Your task to perform on an android device: open device folders in google photos Image 0: 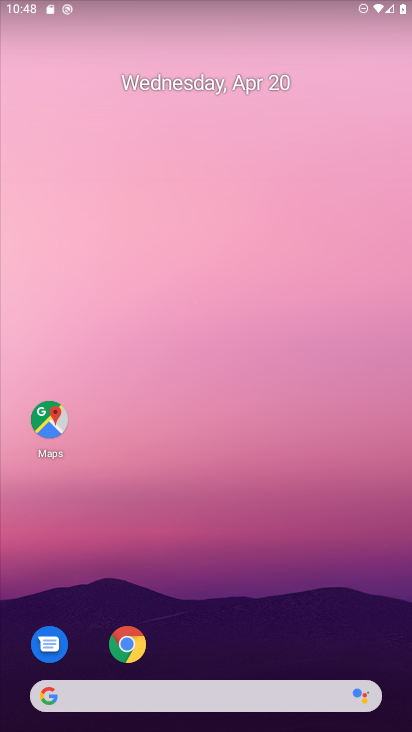
Step 0: drag from (304, 630) to (234, 34)
Your task to perform on an android device: open device folders in google photos Image 1: 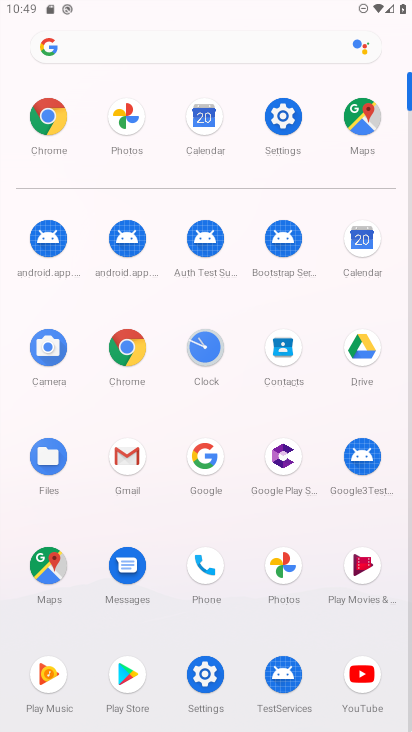
Step 1: click (285, 558)
Your task to perform on an android device: open device folders in google photos Image 2: 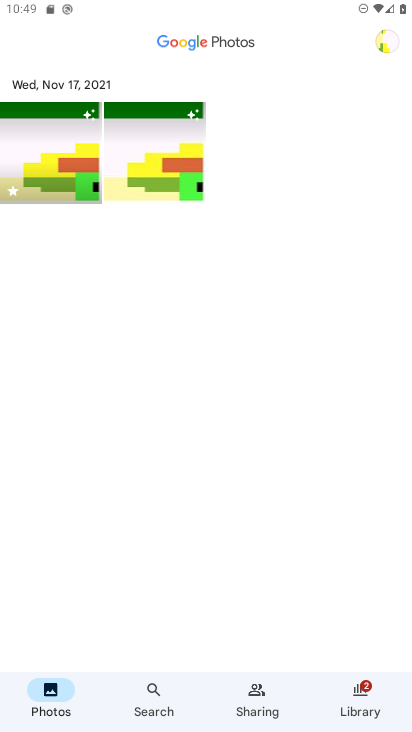
Step 2: click (390, 43)
Your task to perform on an android device: open device folders in google photos Image 3: 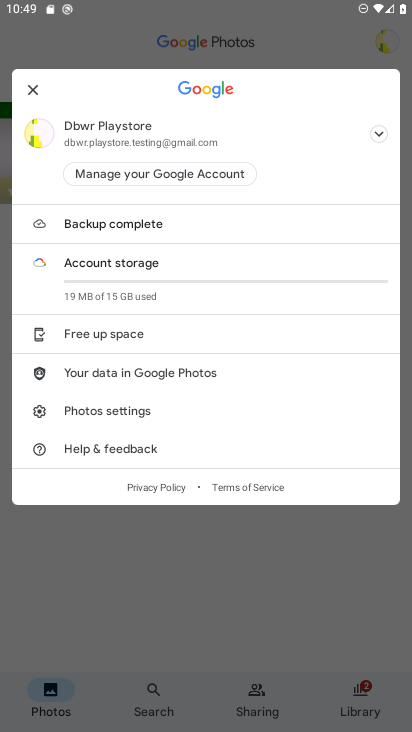
Step 3: task complete